Your task to perform on an android device: Open Android settings Image 0: 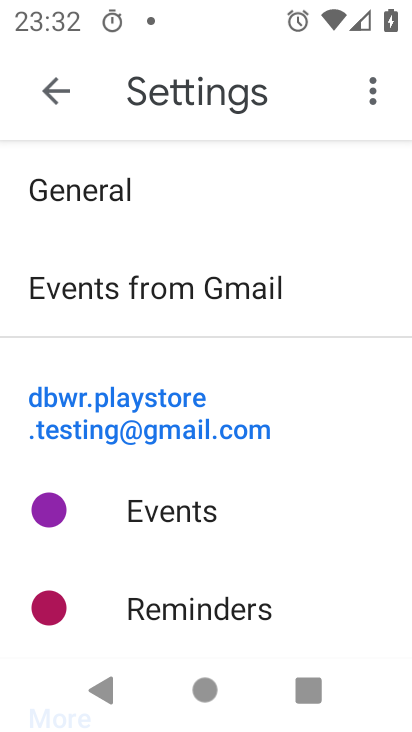
Step 0: press home button
Your task to perform on an android device: Open Android settings Image 1: 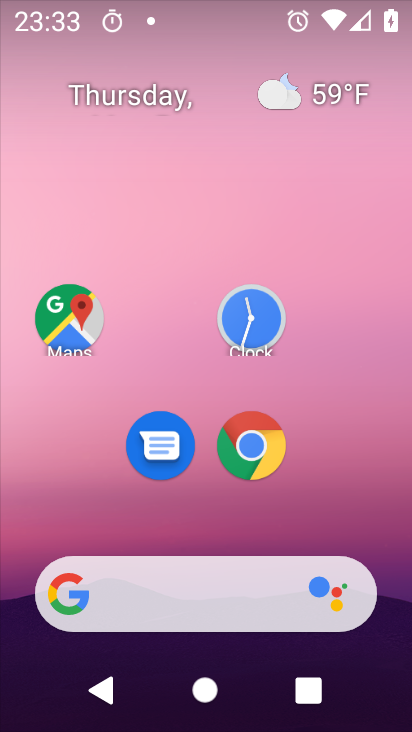
Step 1: drag from (233, 592) to (249, 29)
Your task to perform on an android device: Open Android settings Image 2: 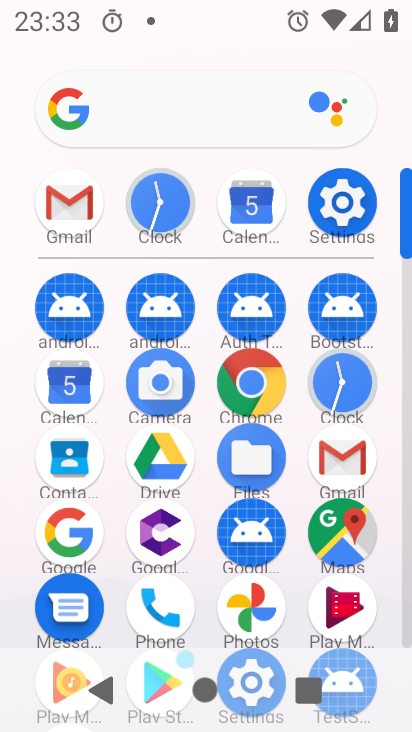
Step 2: click (335, 230)
Your task to perform on an android device: Open Android settings Image 3: 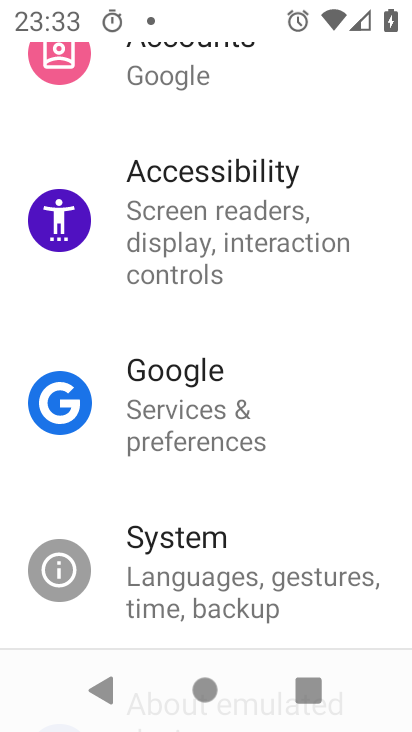
Step 3: drag from (259, 538) to (229, 10)
Your task to perform on an android device: Open Android settings Image 4: 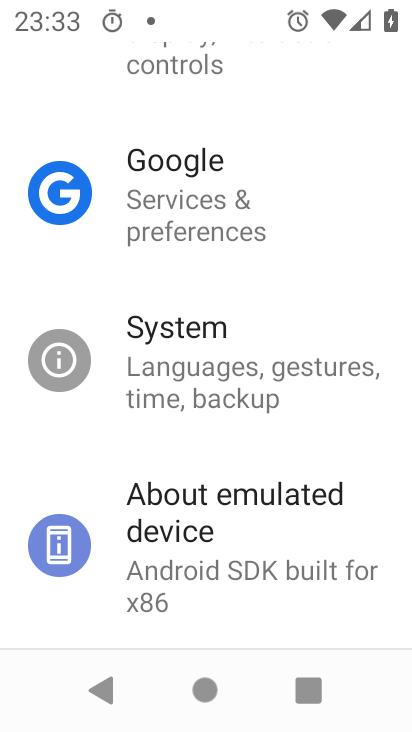
Step 4: click (214, 552)
Your task to perform on an android device: Open Android settings Image 5: 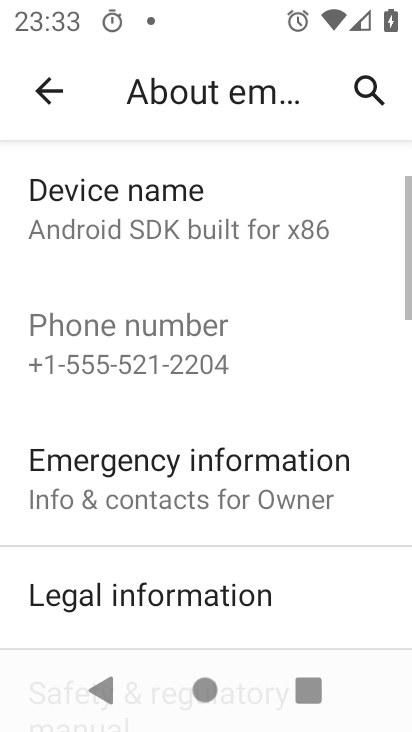
Step 5: task complete